Your task to perform on an android device: snooze an email in the gmail app Image 0: 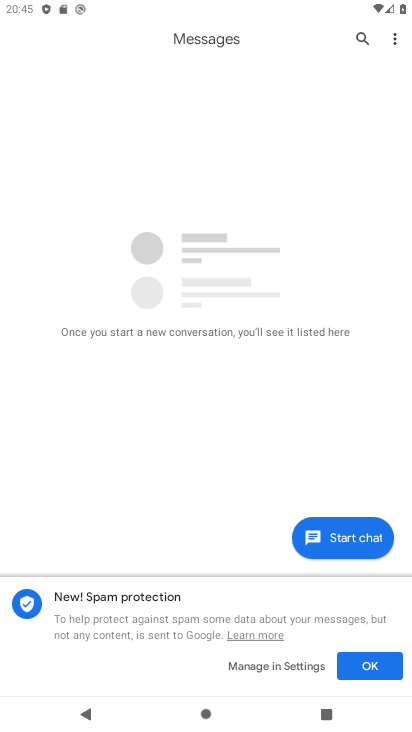
Step 0: press back button
Your task to perform on an android device: snooze an email in the gmail app Image 1: 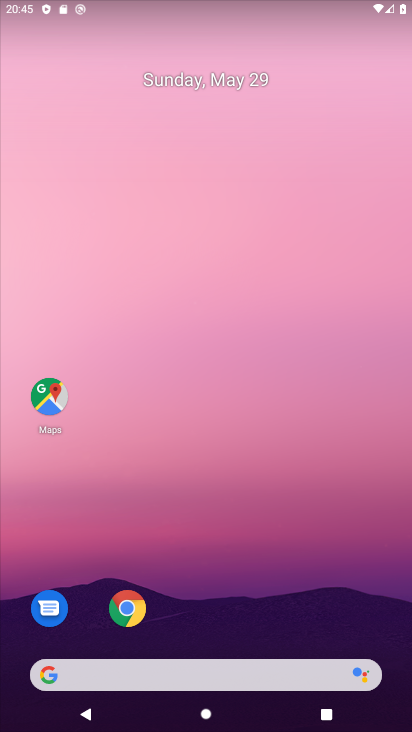
Step 1: drag from (359, 599) to (356, 181)
Your task to perform on an android device: snooze an email in the gmail app Image 2: 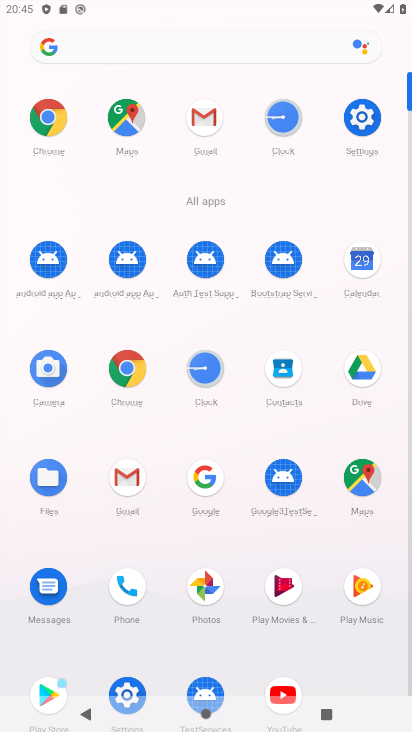
Step 2: click (128, 484)
Your task to perform on an android device: snooze an email in the gmail app Image 3: 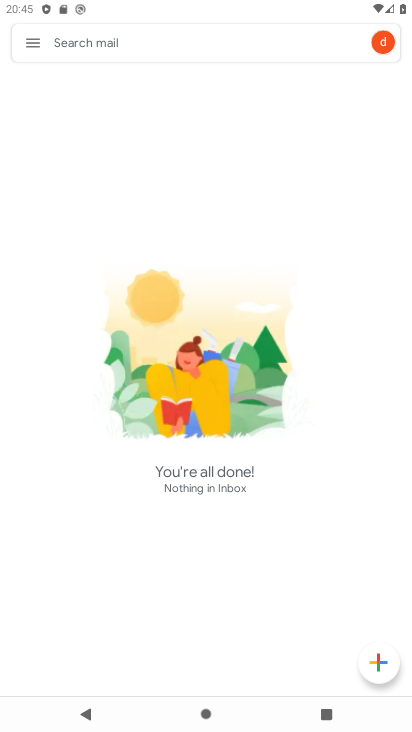
Step 3: click (31, 45)
Your task to perform on an android device: snooze an email in the gmail app Image 4: 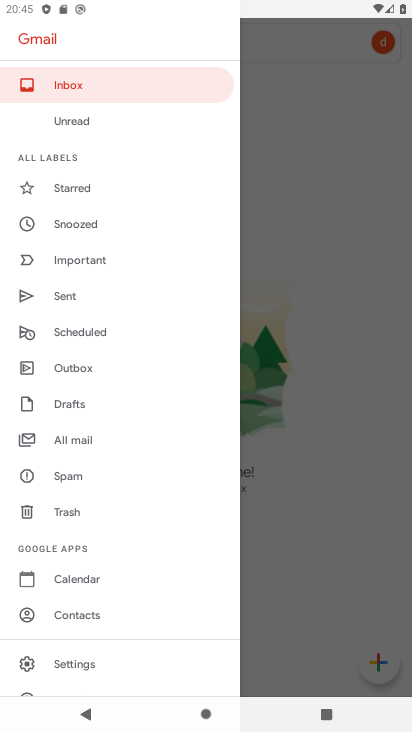
Step 4: drag from (154, 438) to (163, 365)
Your task to perform on an android device: snooze an email in the gmail app Image 5: 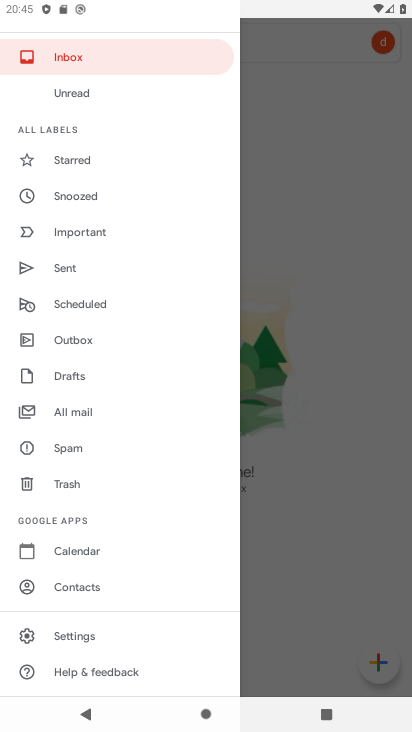
Step 5: drag from (168, 528) to (181, 336)
Your task to perform on an android device: snooze an email in the gmail app Image 6: 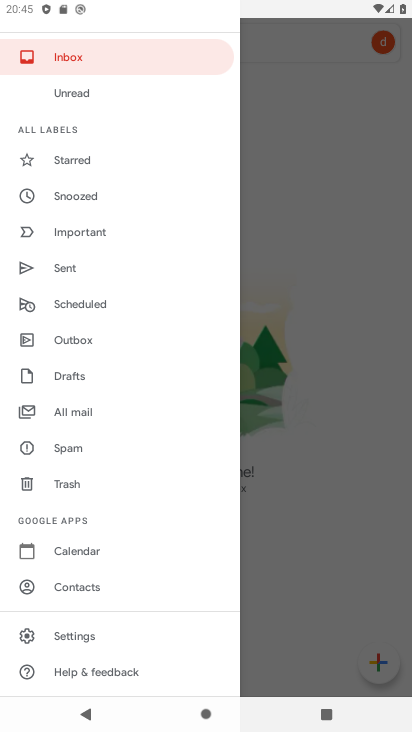
Step 6: drag from (163, 187) to (166, 266)
Your task to perform on an android device: snooze an email in the gmail app Image 7: 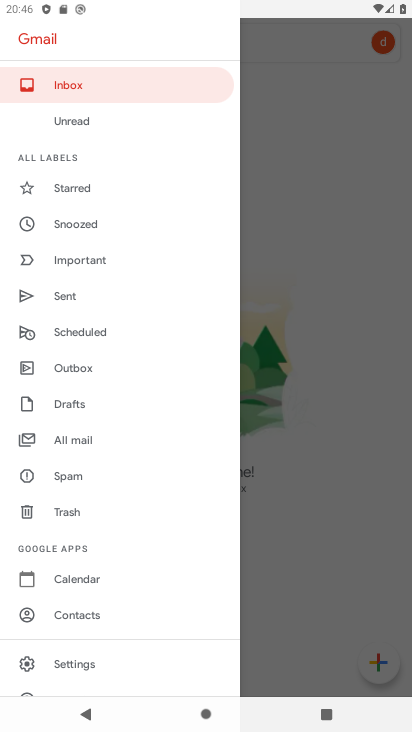
Step 7: click (149, 218)
Your task to perform on an android device: snooze an email in the gmail app Image 8: 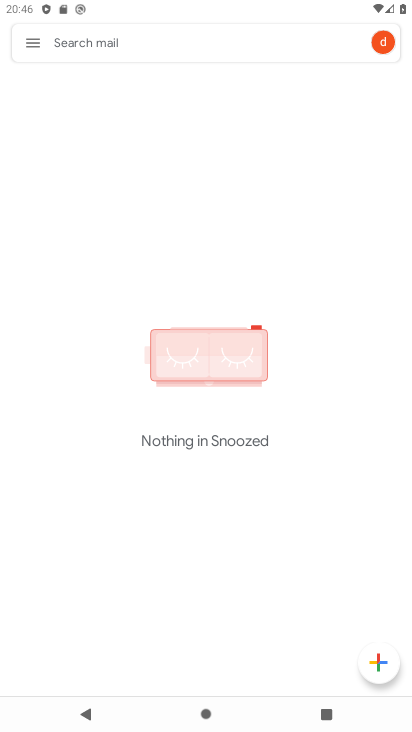
Step 8: task complete